Your task to perform on an android device: Open wifi settings Image 0: 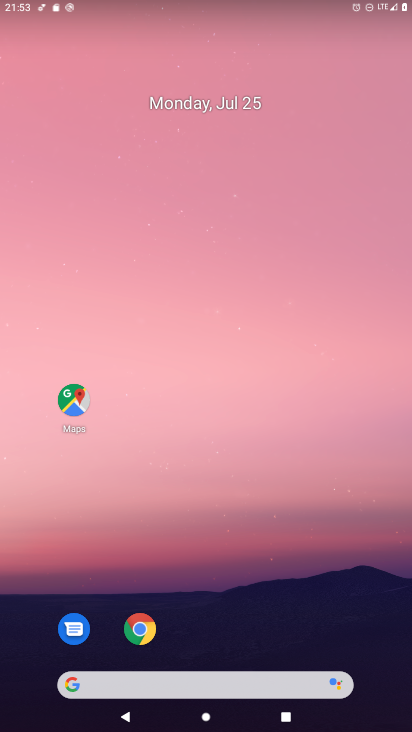
Step 0: drag from (184, 681) to (171, 88)
Your task to perform on an android device: Open wifi settings Image 1: 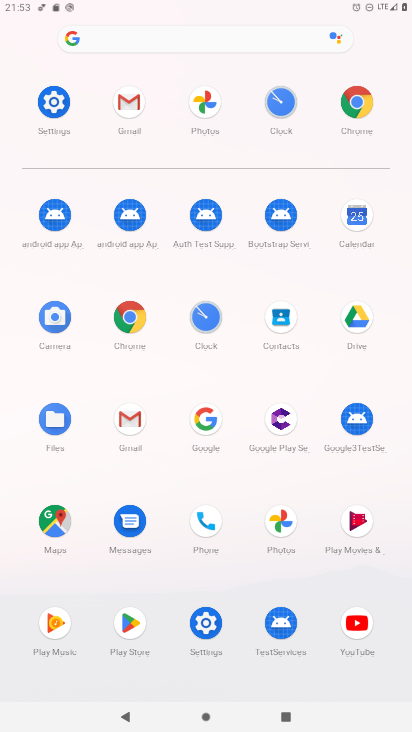
Step 1: click (52, 99)
Your task to perform on an android device: Open wifi settings Image 2: 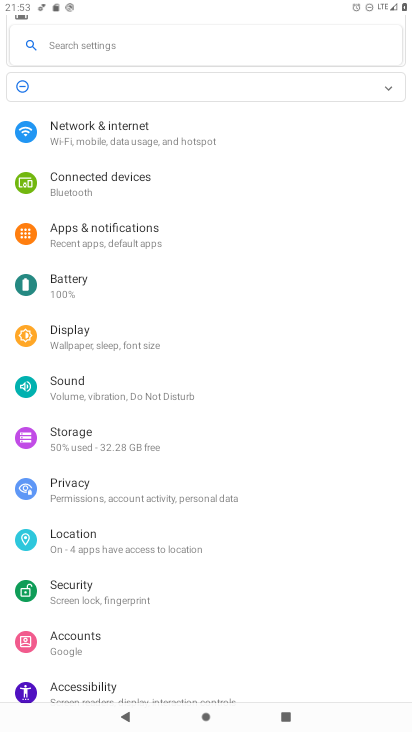
Step 2: click (105, 140)
Your task to perform on an android device: Open wifi settings Image 3: 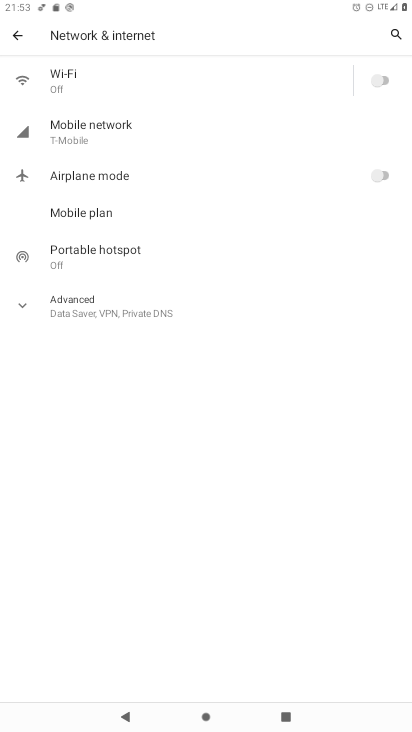
Step 3: click (71, 75)
Your task to perform on an android device: Open wifi settings Image 4: 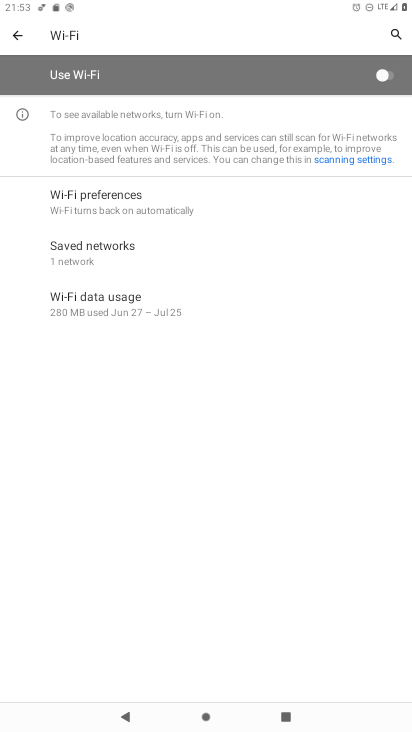
Step 4: task complete